Your task to perform on an android device: set default search engine in the chrome app Image 0: 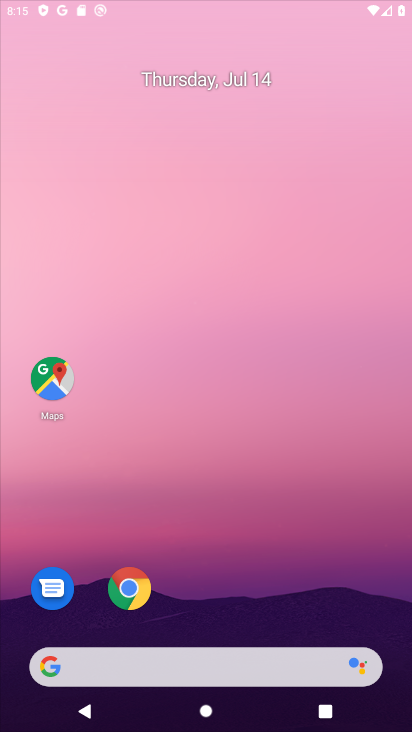
Step 0: press back button
Your task to perform on an android device: set default search engine in the chrome app Image 1: 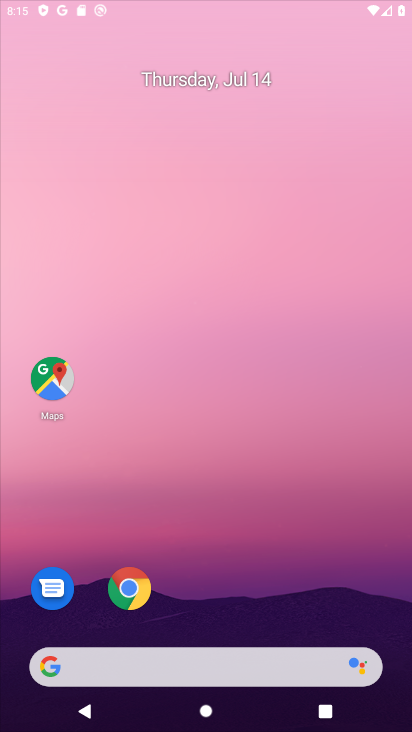
Step 1: click (227, 112)
Your task to perform on an android device: set default search engine in the chrome app Image 2: 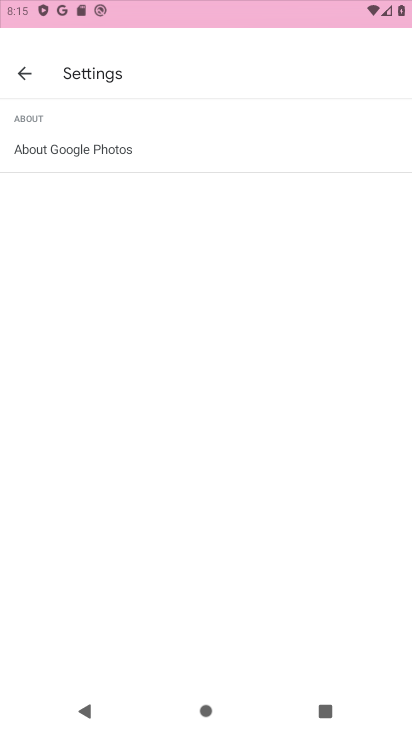
Step 2: drag from (239, 560) to (162, 34)
Your task to perform on an android device: set default search engine in the chrome app Image 3: 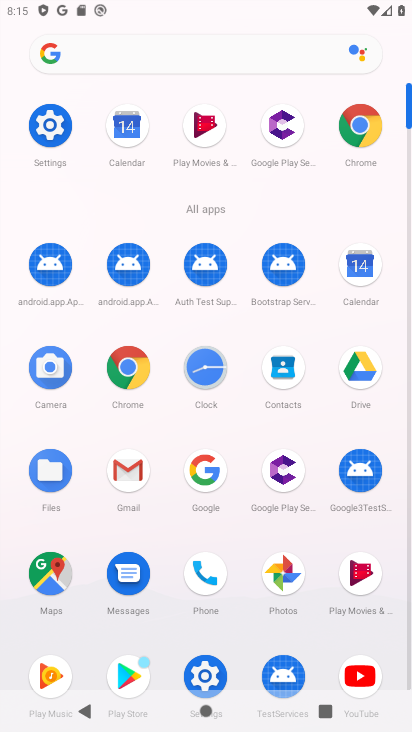
Step 3: click (127, 373)
Your task to perform on an android device: set default search engine in the chrome app Image 4: 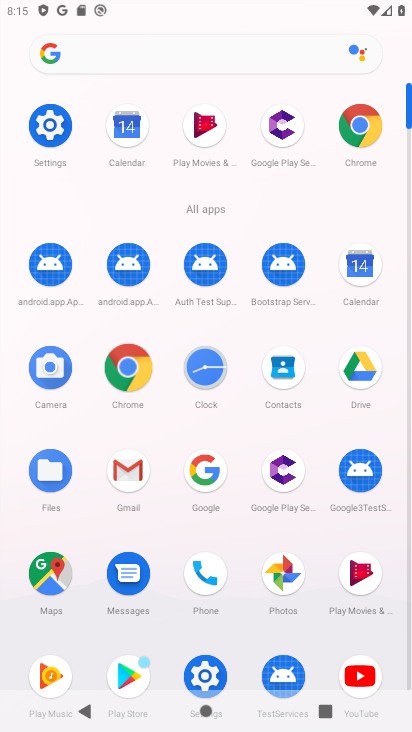
Step 4: click (132, 369)
Your task to perform on an android device: set default search engine in the chrome app Image 5: 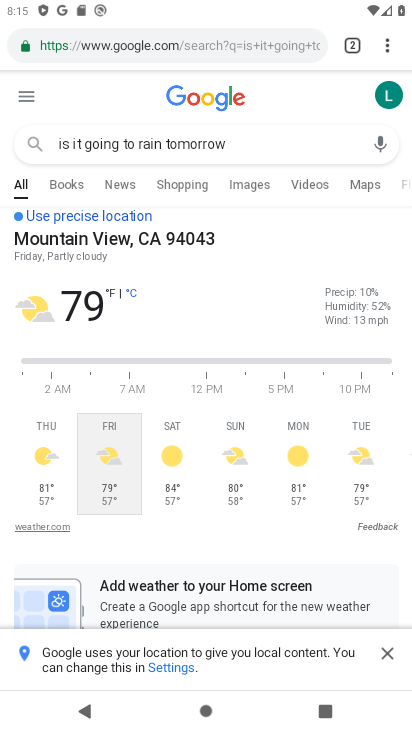
Step 5: drag from (389, 43) to (216, 504)
Your task to perform on an android device: set default search engine in the chrome app Image 6: 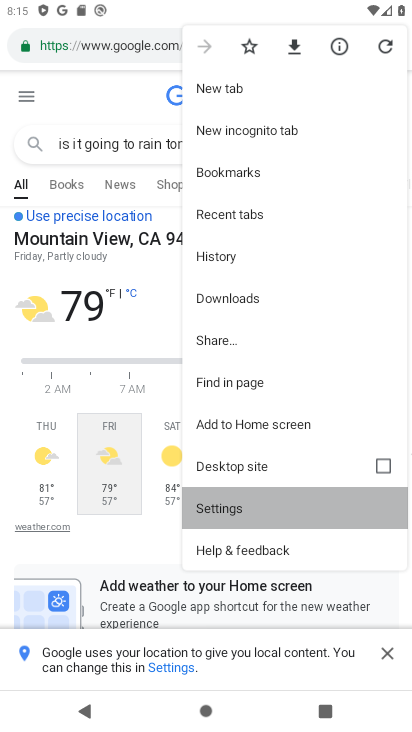
Step 6: click (234, 517)
Your task to perform on an android device: set default search engine in the chrome app Image 7: 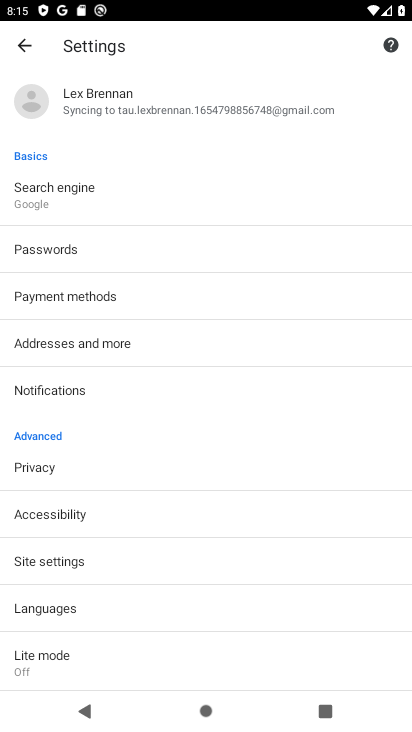
Step 7: click (31, 182)
Your task to perform on an android device: set default search engine in the chrome app Image 8: 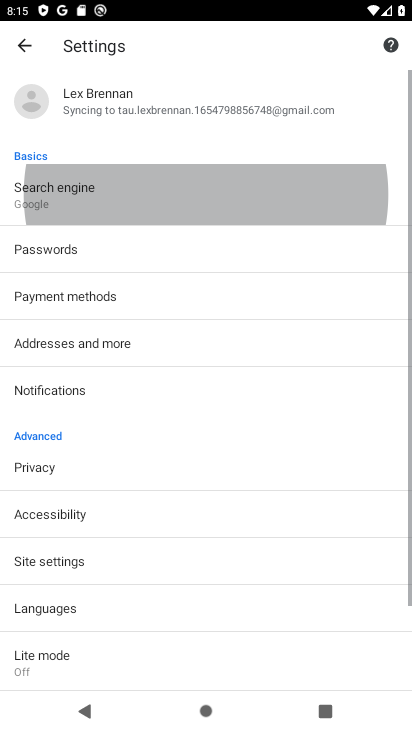
Step 8: click (32, 183)
Your task to perform on an android device: set default search engine in the chrome app Image 9: 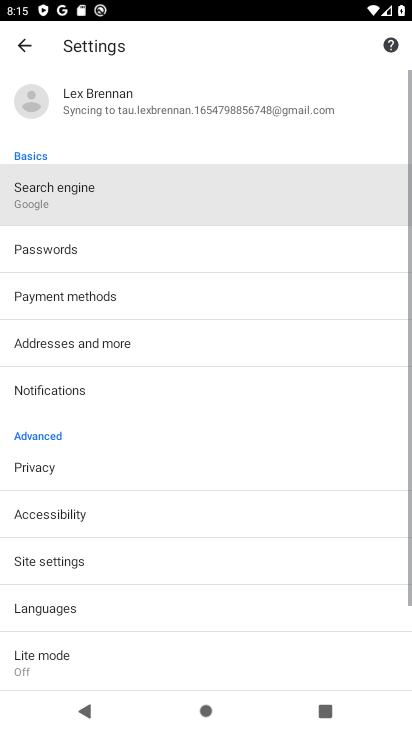
Step 9: click (42, 191)
Your task to perform on an android device: set default search engine in the chrome app Image 10: 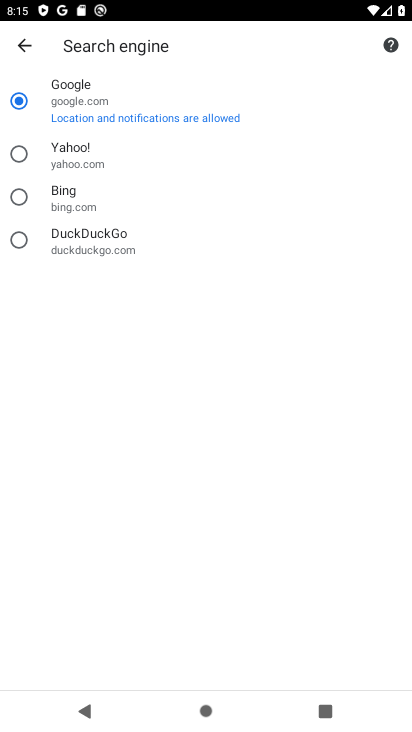
Step 10: click (21, 153)
Your task to perform on an android device: set default search engine in the chrome app Image 11: 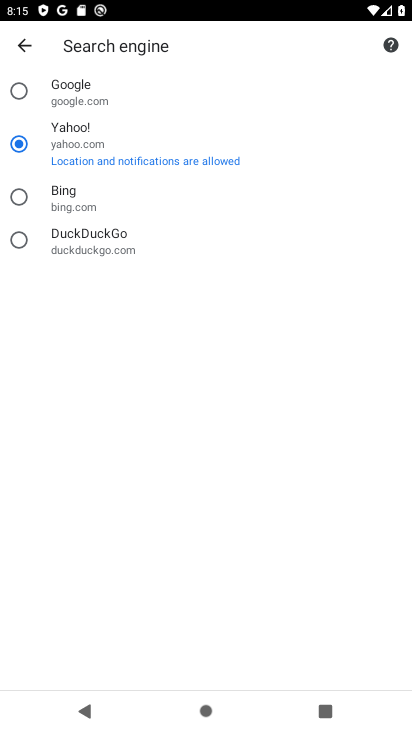
Step 11: task complete